Your task to perform on an android device: Open settings Image 0: 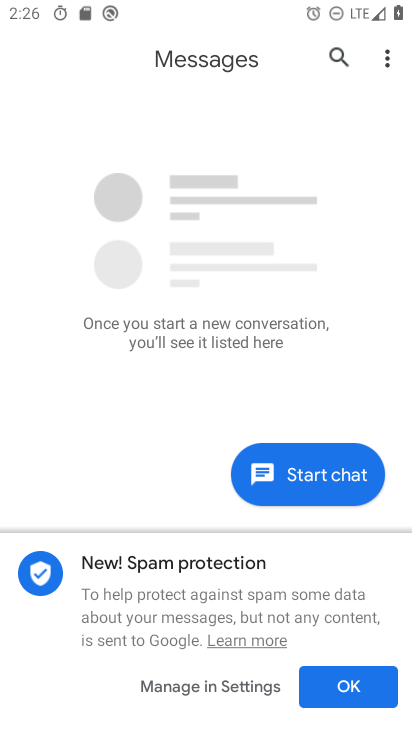
Step 0: press home button
Your task to perform on an android device: Open settings Image 1: 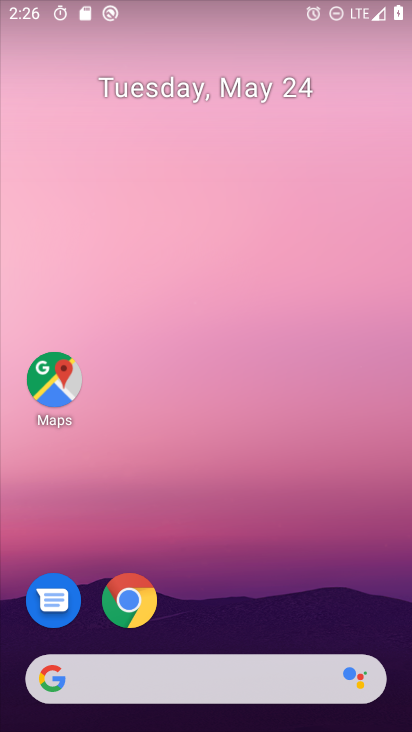
Step 1: drag from (286, 585) to (290, 81)
Your task to perform on an android device: Open settings Image 2: 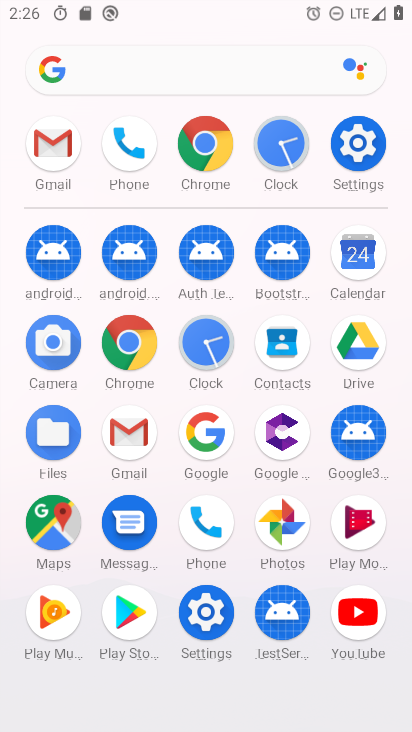
Step 2: click (357, 146)
Your task to perform on an android device: Open settings Image 3: 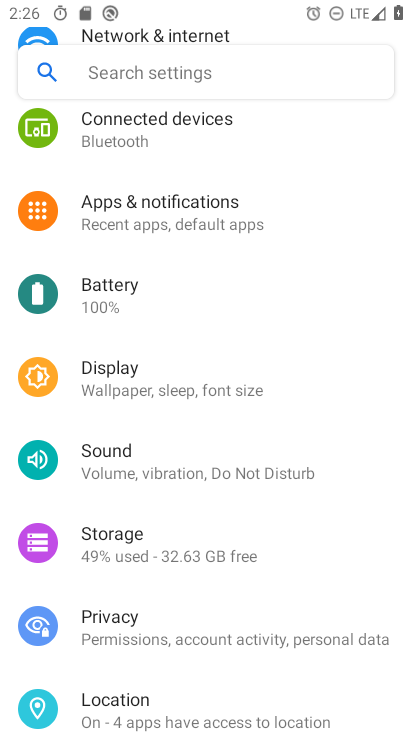
Step 3: task complete